Your task to perform on an android device: remove spam from my inbox in the gmail app Image 0: 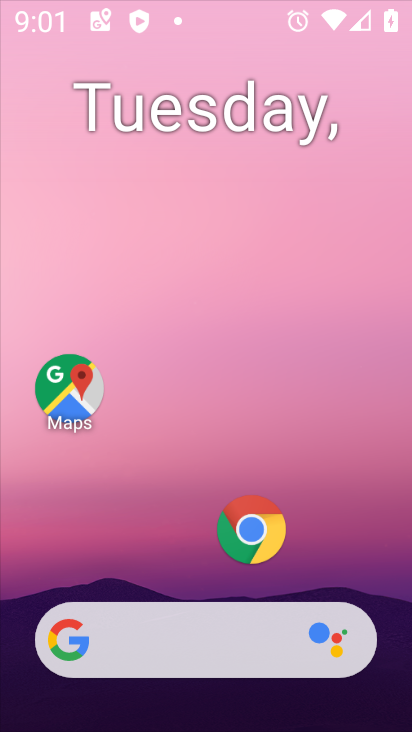
Step 0: press home button
Your task to perform on an android device: remove spam from my inbox in the gmail app Image 1: 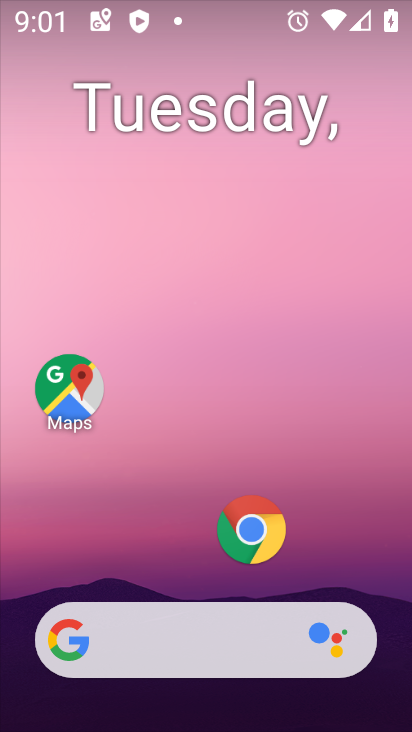
Step 1: drag from (197, 581) to (176, 53)
Your task to perform on an android device: remove spam from my inbox in the gmail app Image 2: 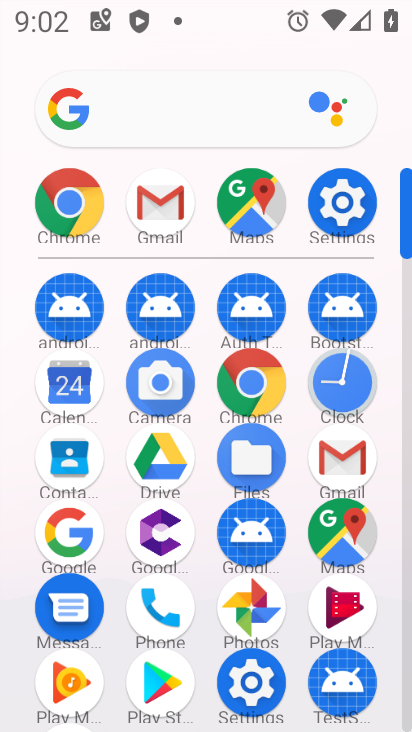
Step 2: click (159, 194)
Your task to perform on an android device: remove spam from my inbox in the gmail app Image 3: 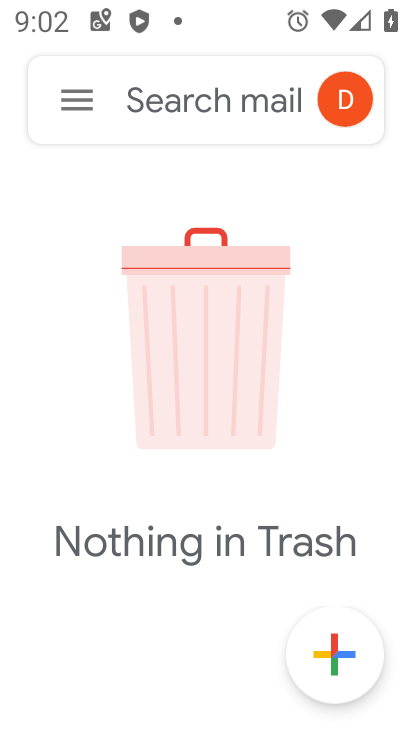
Step 3: click (78, 88)
Your task to perform on an android device: remove spam from my inbox in the gmail app Image 4: 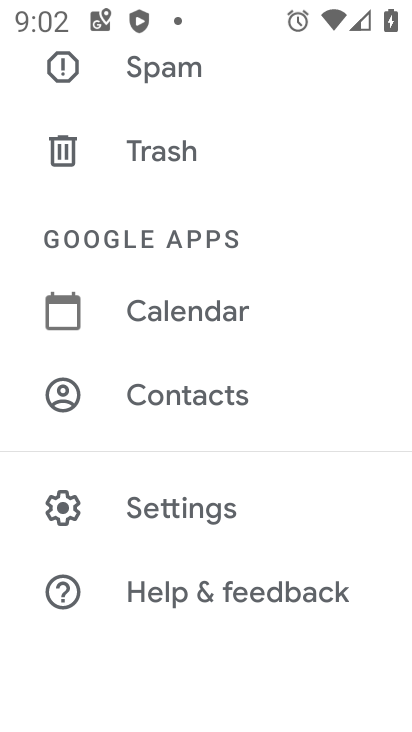
Step 4: click (108, 65)
Your task to perform on an android device: remove spam from my inbox in the gmail app Image 5: 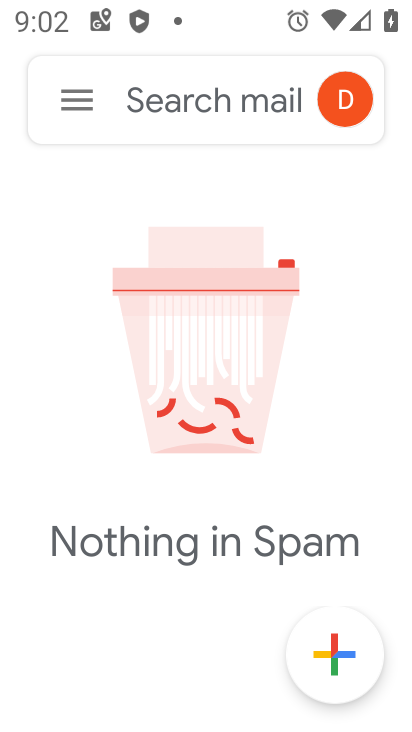
Step 5: task complete